Your task to perform on an android device: Open Google Chrome and open the bookmarks view Image 0: 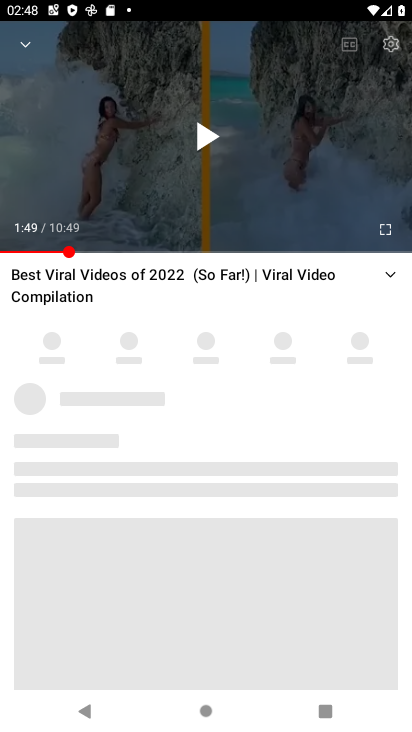
Step 0: press home button
Your task to perform on an android device: Open Google Chrome and open the bookmarks view Image 1: 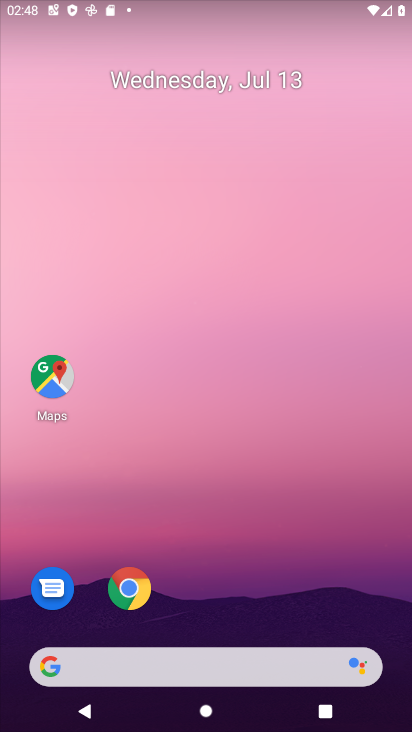
Step 1: click (132, 591)
Your task to perform on an android device: Open Google Chrome and open the bookmarks view Image 2: 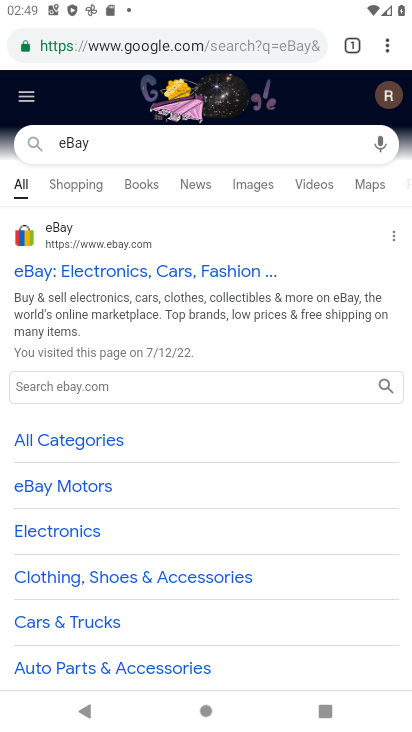
Step 2: click (387, 47)
Your task to perform on an android device: Open Google Chrome and open the bookmarks view Image 3: 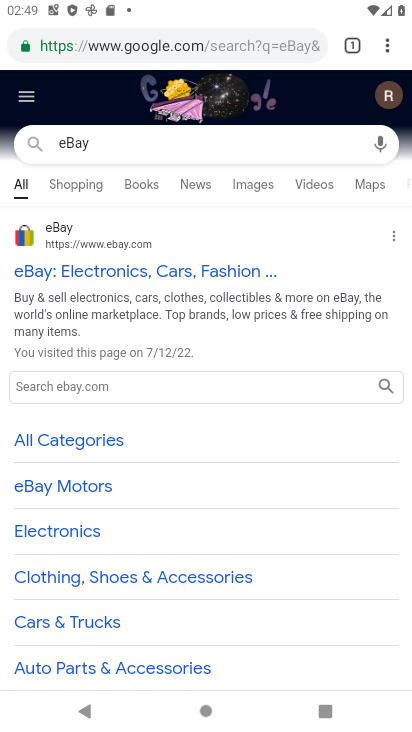
Step 3: click (389, 43)
Your task to perform on an android device: Open Google Chrome and open the bookmarks view Image 4: 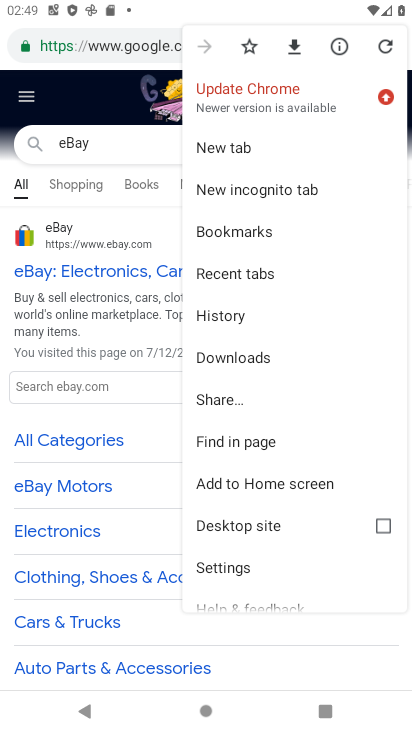
Step 4: click (236, 225)
Your task to perform on an android device: Open Google Chrome and open the bookmarks view Image 5: 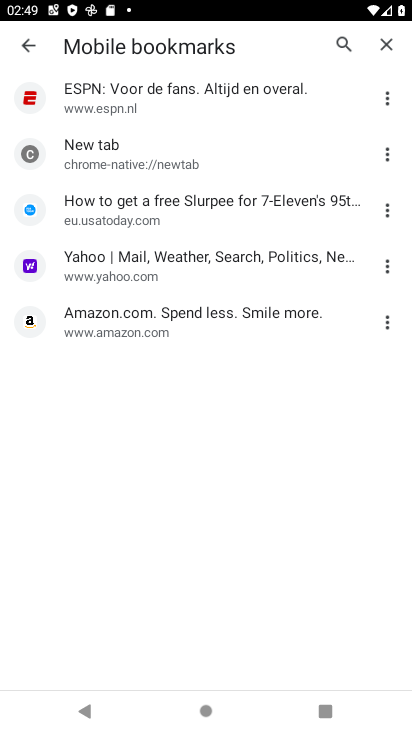
Step 5: task complete